Your task to perform on an android device: manage bookmarks in the chrome app Image 0: 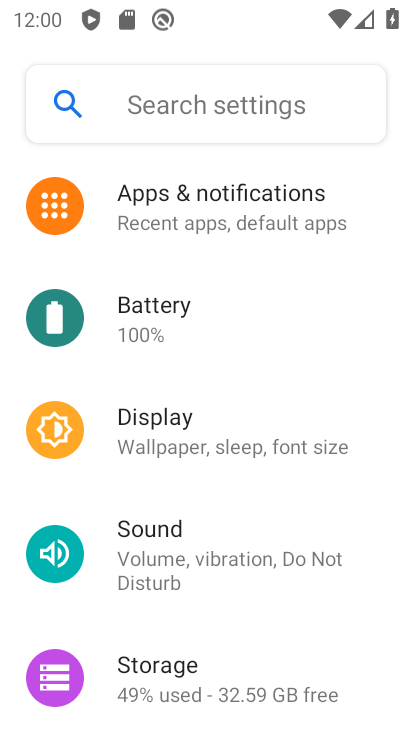
Step 0: press home button
Your task to perform on an android device: manage bookmarks in the chrome app Image 1: 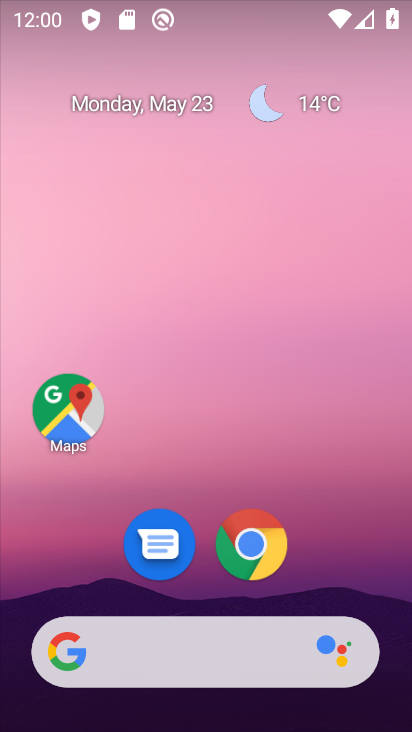
Step 1: click (252, 546)
Your task to perform on an android device: manage bookmarks in the chrome app Image 2: 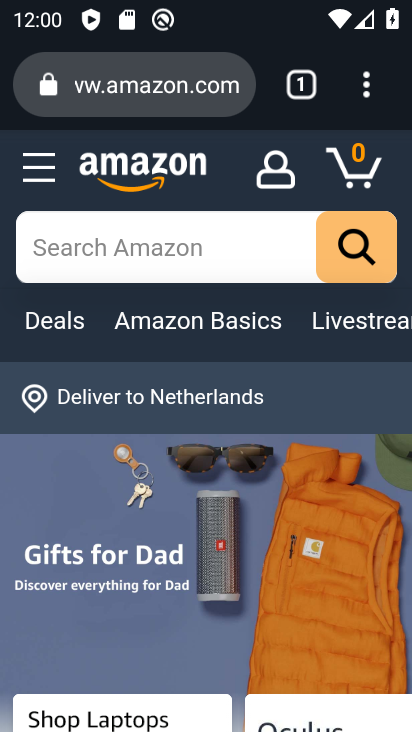
Step 2: task complete